Your task to perform on an android device: Go to calendar. Show me events next week Image 0: 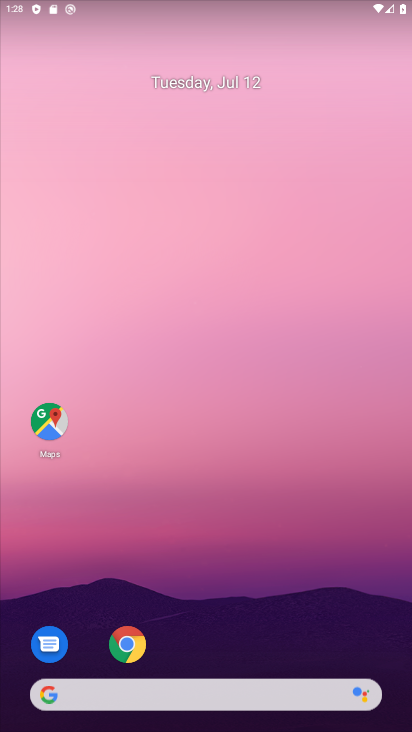
Step 0: drag from (183, 677) to (30, 174)
Your task to perform on an android device: Go to calendar. Show me events next week Image 1: 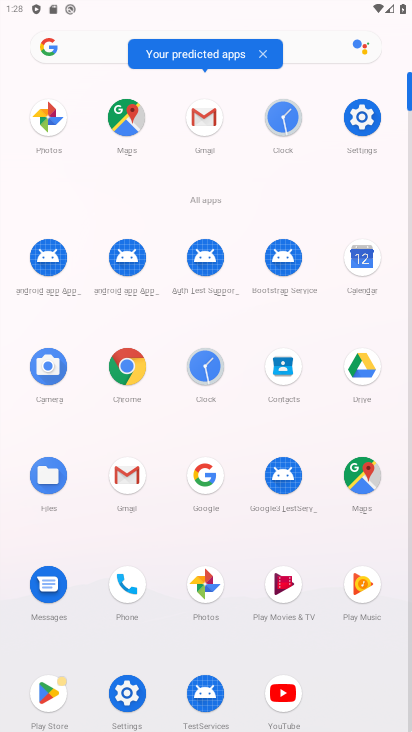
Step 1: click (360, 262)
Your task to perform on an android device: Go to calendar. Show me events next week Image 2: 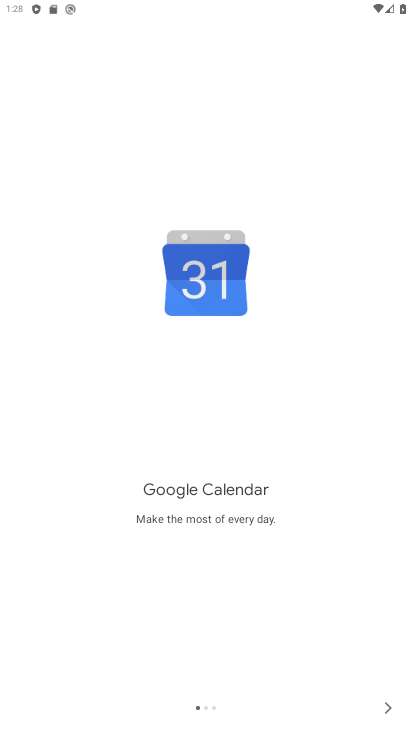
Step 2: click (384, 708)
Your task to perform on an android device: Go to calendar. Show me events next week Image 3: 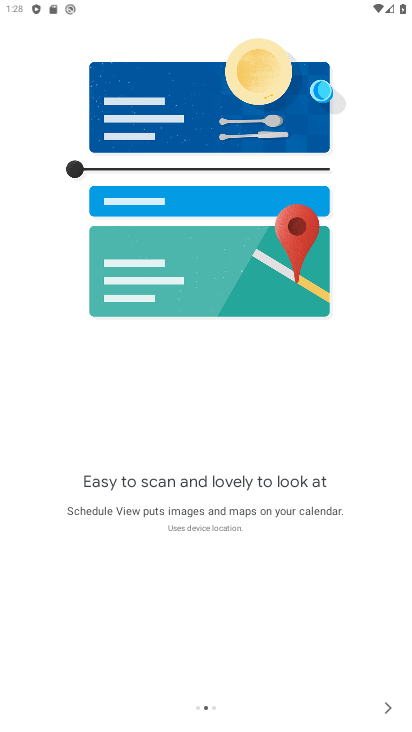
Step 3: click (374, 708)
Your task to perform on an android device: Go to calendar. Show me events next week Image 4: 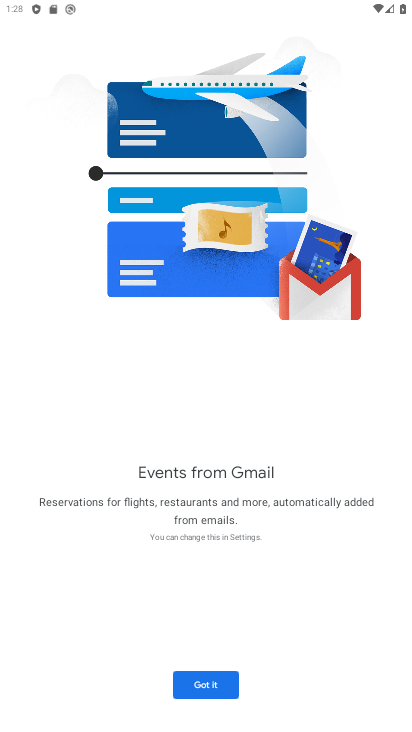
Step 4: click (225, 687)
Your task to perform on an android device: Go to calendar. Show me events next week Image 5: 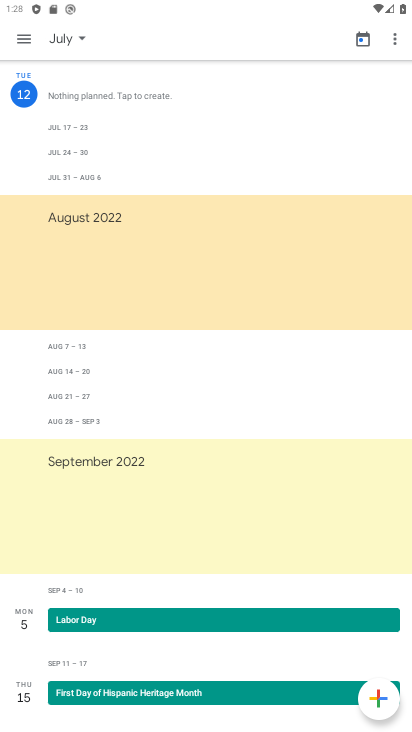
Step 5: click (18, 40)
Your task to perform on an android device: Go to calendar. Show me events next week Image 6: 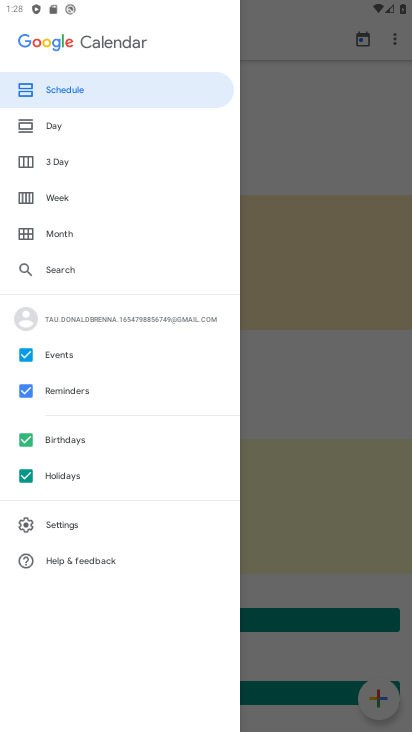
Step 6: click (52, 197)
Your task to perform on an android device: Go to calendar. Show me events next week Image 7: 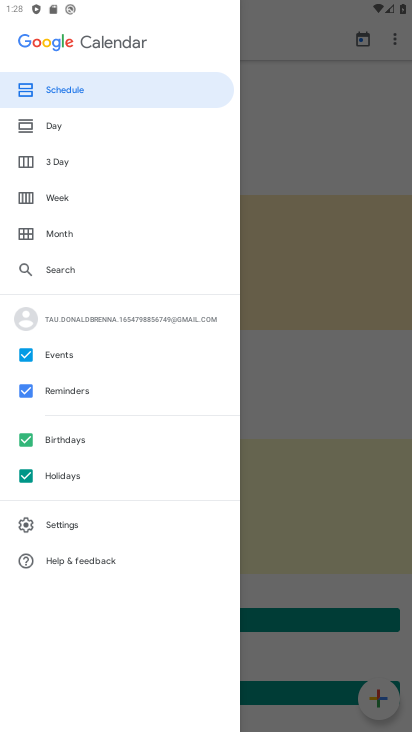
Step 7: click (38, 193)
Your task to perform on an android device: Go to calendar. Show me events next week Image 8: 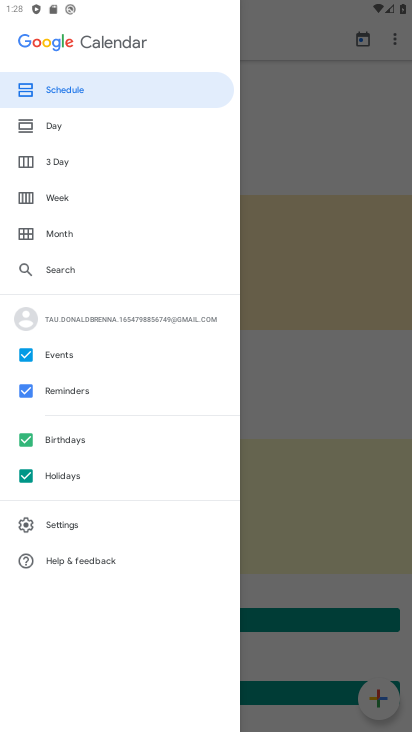
Step 8: click (87, 200)
Your task to perform on an android device: Go to calendar. Show me events next week Image 9: 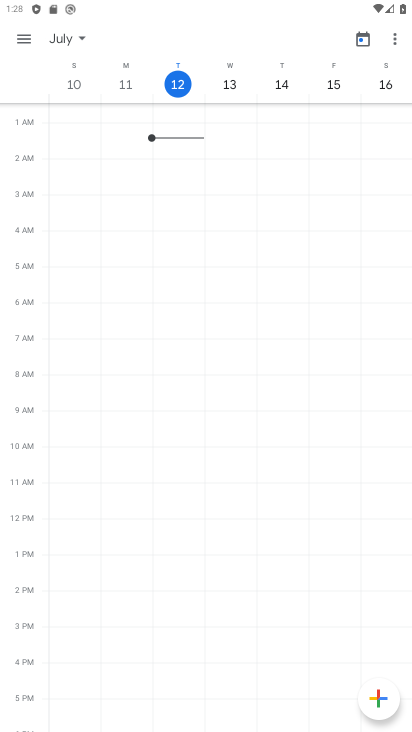
Step 9: task complete